Your task to perform on an android device: change the clock style Image 0: 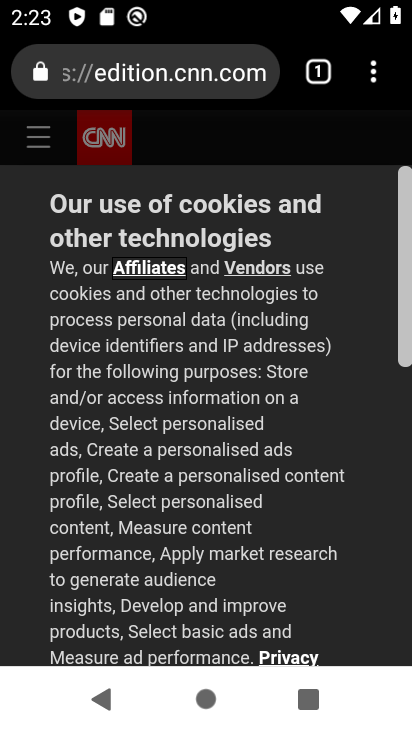
Step 0: press home button
Your task to perform on an android device: change the clock style Image 1: 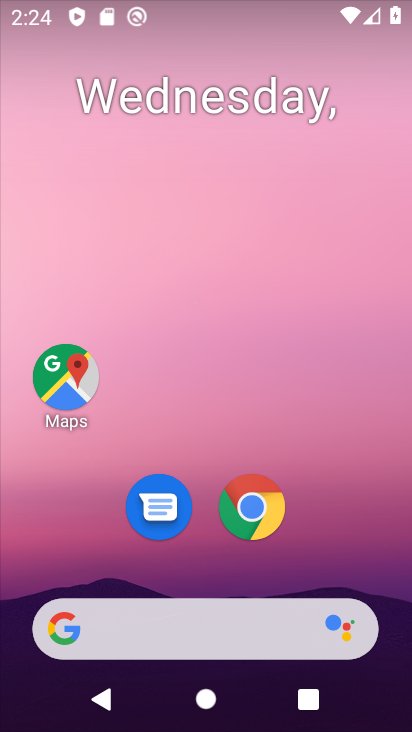
Step 1: drag from (340, 537) to (354, 40)
Your task to perform on an android device: change the clock style Image 2: 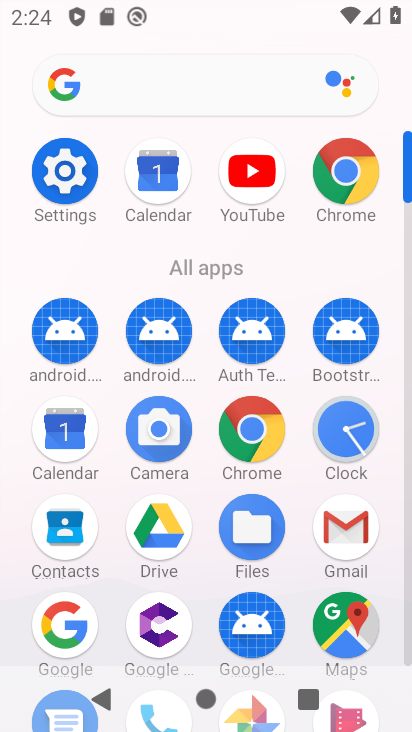
Step 2: click (330, 427)
Your task to perform on an android device: change the clock style Image 3: 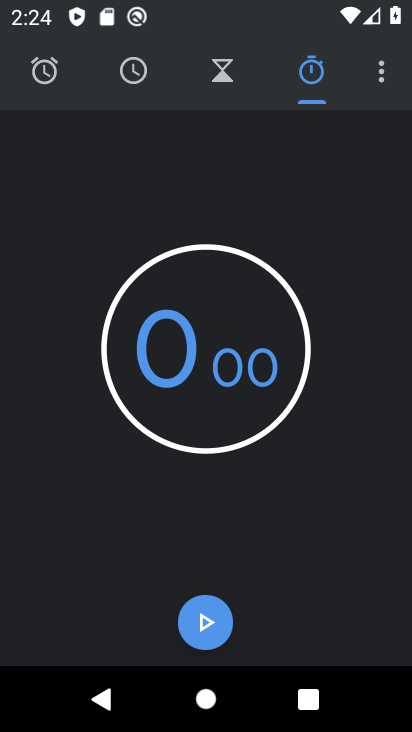
Step 3: click (377, 82)
Your task to perform on an android device: change the clock style Image 4: 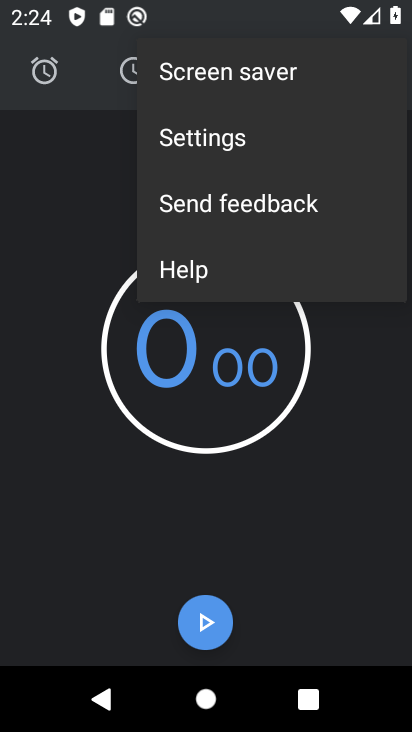
Step 4: click (250, 134)
Your task to perform on an android device: change the clock style Image 5: 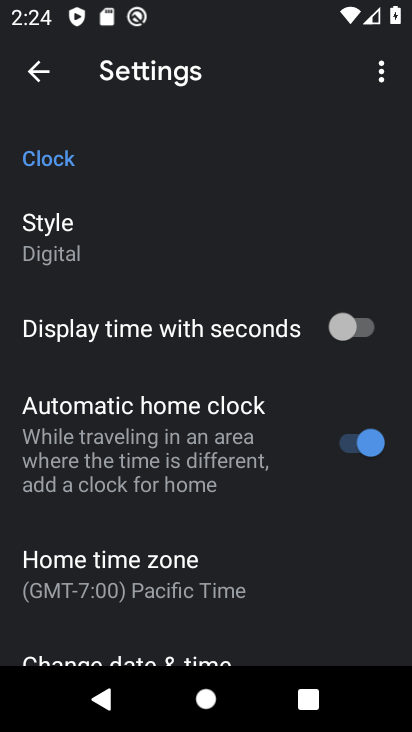
Step 5: click (140, 242)
Your task to perform on an android device: change the clock style Image 6: 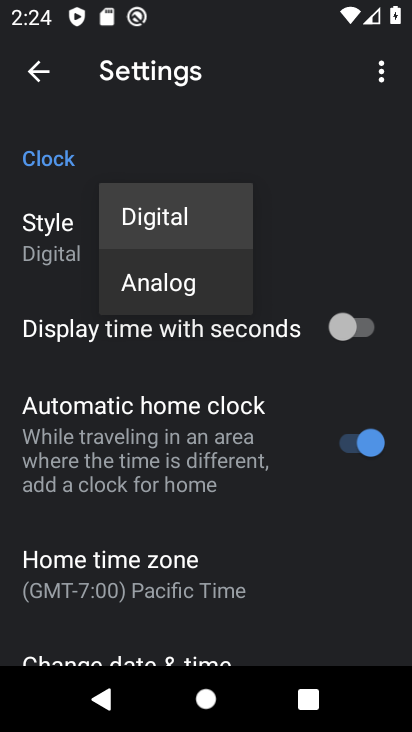
Step 6: click (172, 288)
Your task to perform on an android device: change the clock style Image 7: 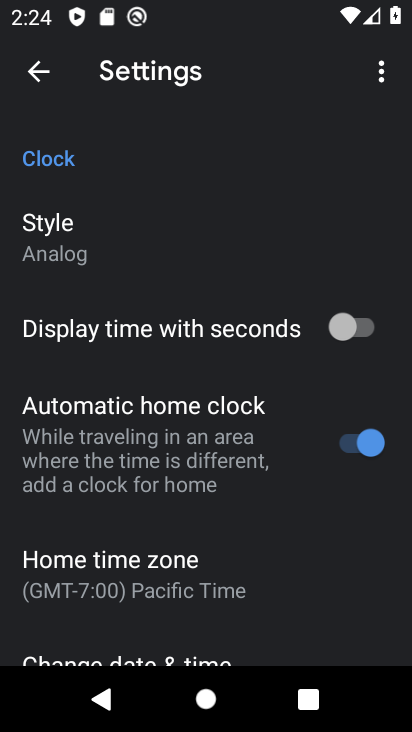
Step 7: task complete